Your task to perform on an android device: What's the weather going to be tomorrow? Image 0: 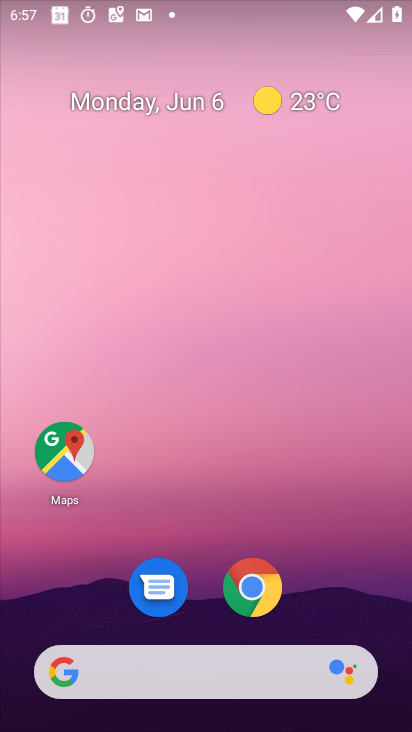
Step 0: drag from (381, 651) to (258, 68)
Your task to perform on an android device: What's the weather going to be tomorrow? Image 1: 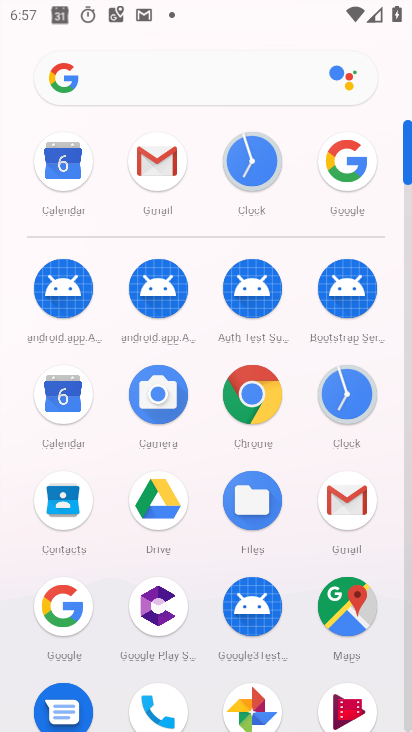
Step 1: click (74, 613)
Your task to perform on an android device: What's the weather going to be tomorrow? Image 2: 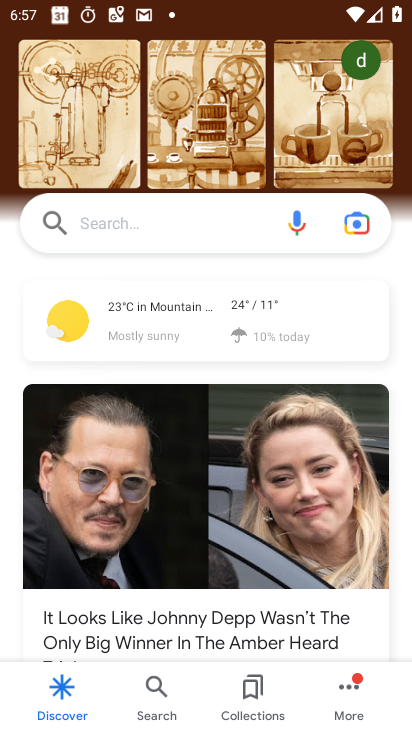
Step 2: click (104, 230)
Your task to perform on an android device: What's the weather going to be tomorrow? Image 3: 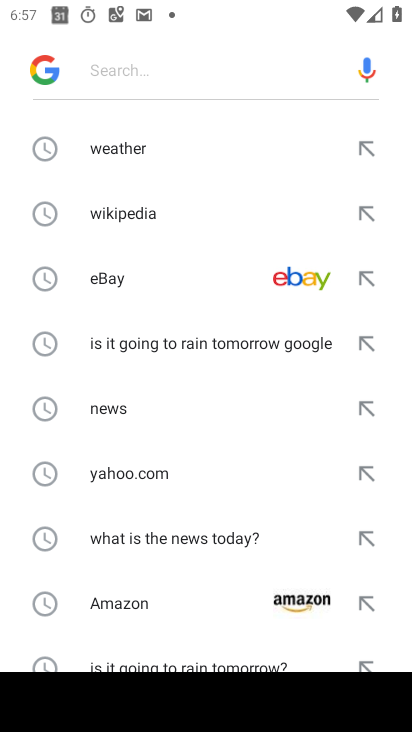
Step 3: drag from (185, 574) to (195, 176)
Your task to perform on an android device: What's the weather going to be tomorrow? Image 4: 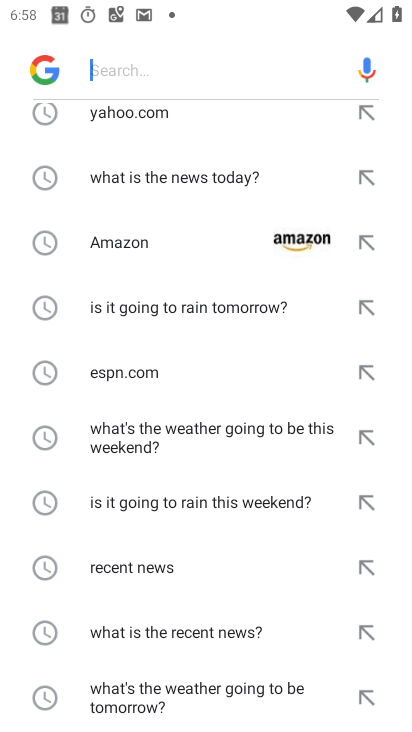
Step 4: click (163, 693)
Your task to perform on an android device: What's the weather going to be tomorrow? Image 5: 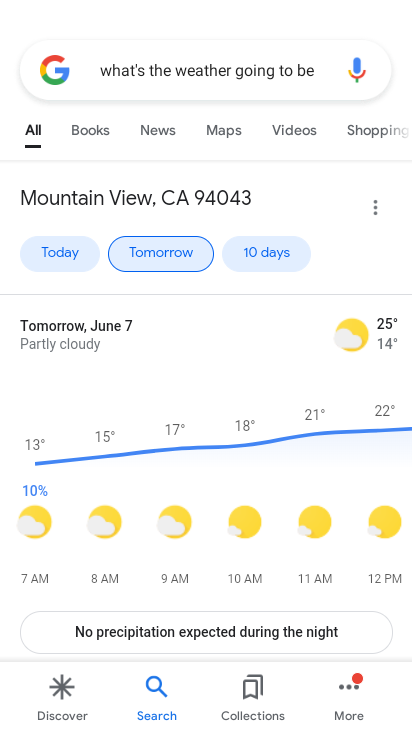
Step 5: task complete